Your task to perform on an android device: Open settings on Google Maps Image 0: 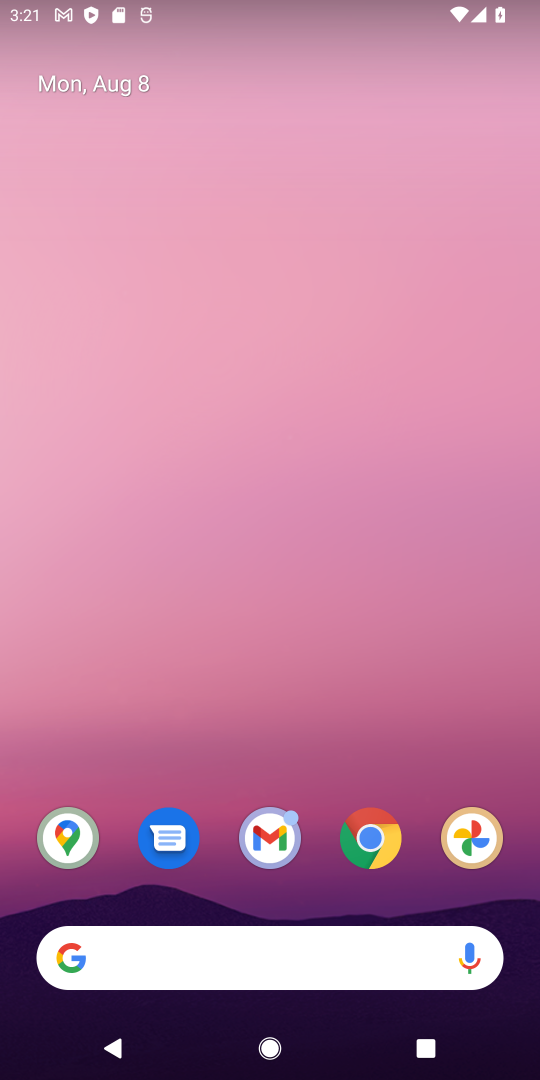
Step 0: click (67, 831)
Your task to perform on an android device: Open settings on Google Maps Image 1: 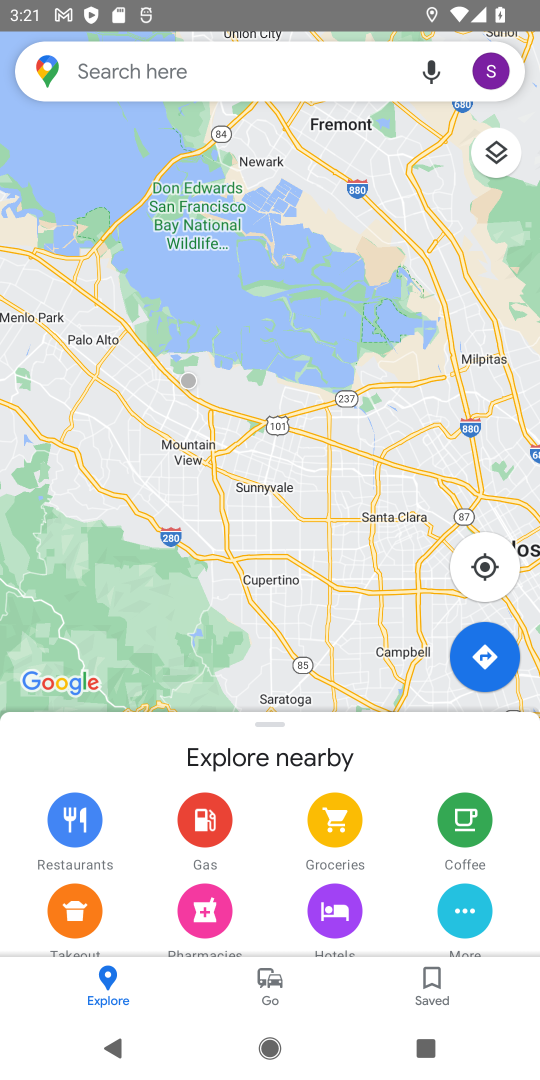
Step 1: click (493, 77)
Your task to perform on an android device: Open settings on Google Maps Image 2: 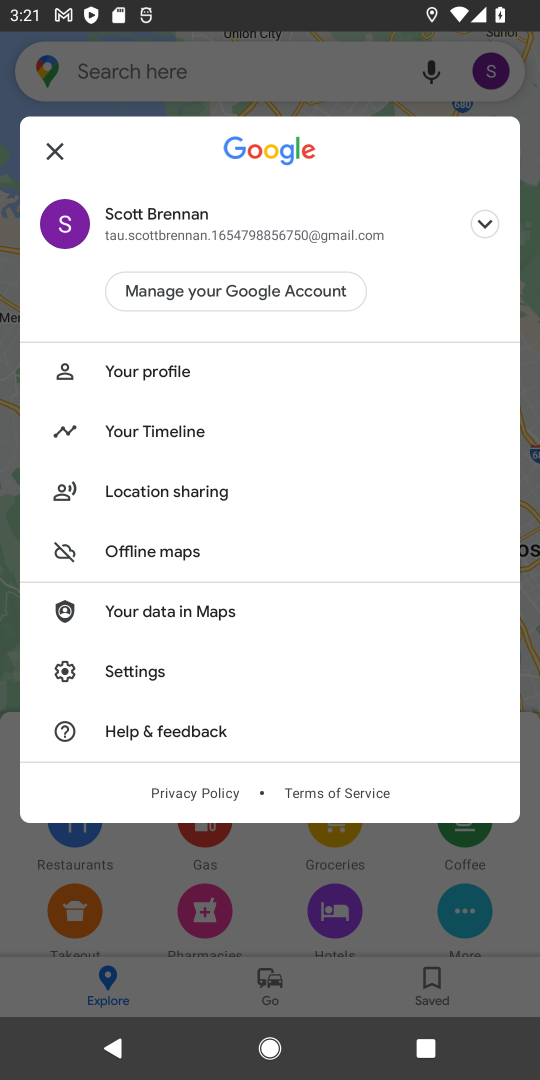
Step 2: click (141, 667)
Your task to perform on an android device: Open settings on Google Maps Image 3: 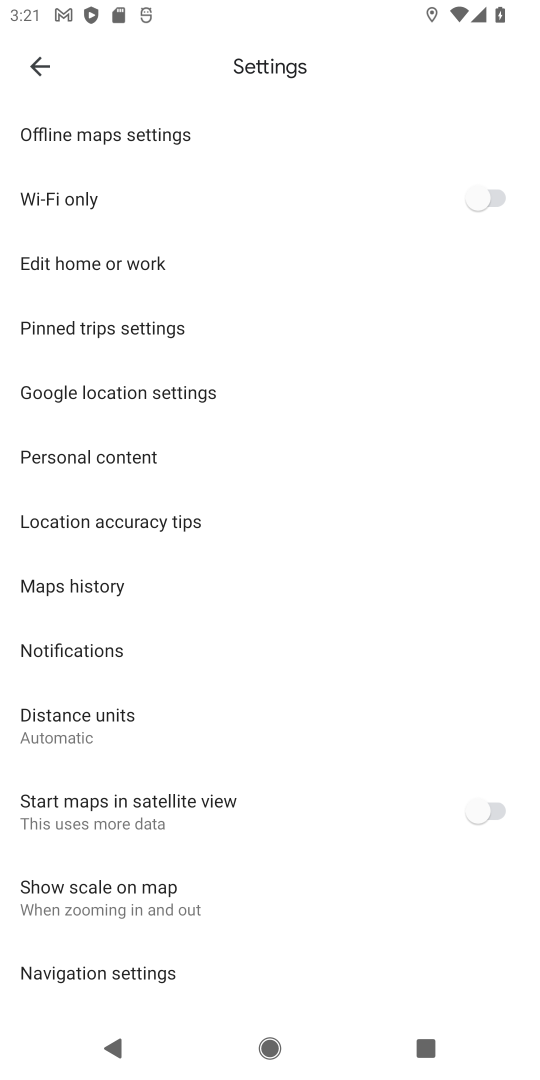
Step 3: task complete